Your task to perform on an android device: turn notification dots off Image 0: 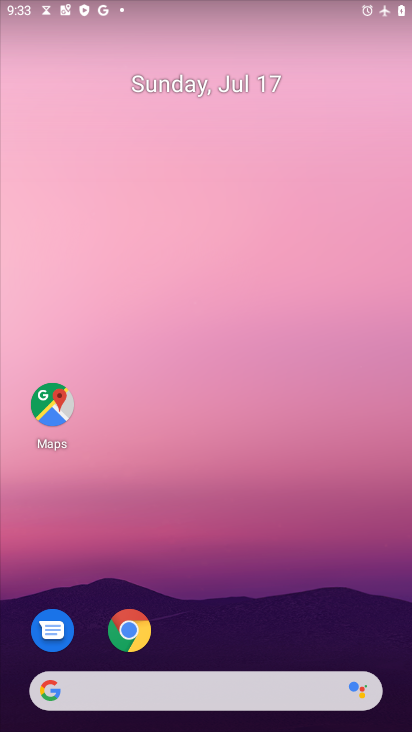
Step 0: drag from (186, 611) to (203, 25)
Your task to perform on an android device: turn notification dots off Image 1: 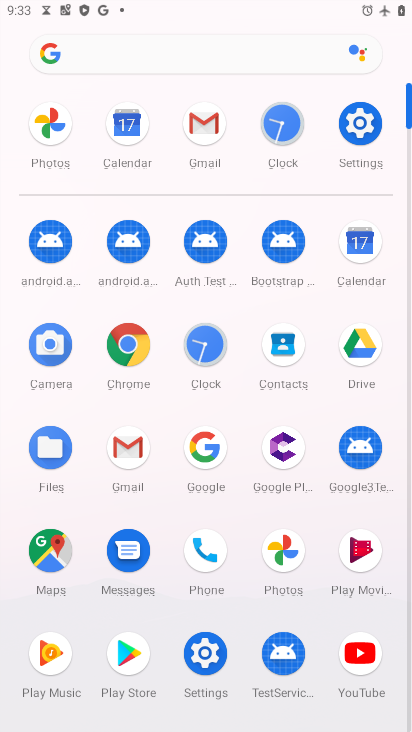
Step 1: click (360, 123)
Your task to perform on an android device: turn notification dots off Image 2: 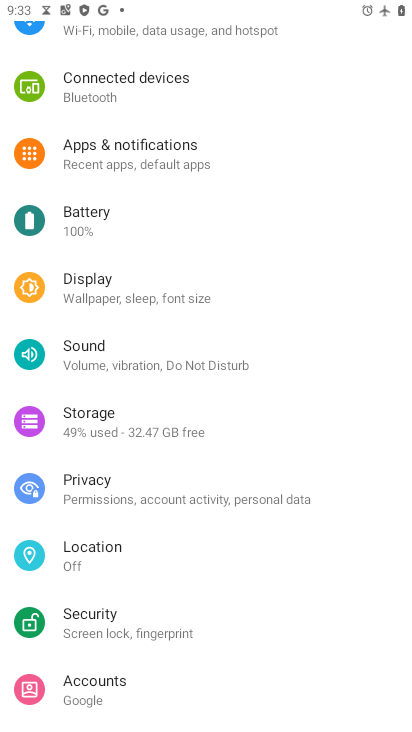
Step 2: drag from (189, 179) to (188, 419)
Your task to perform on an android device: turn notification dots off Image 3: 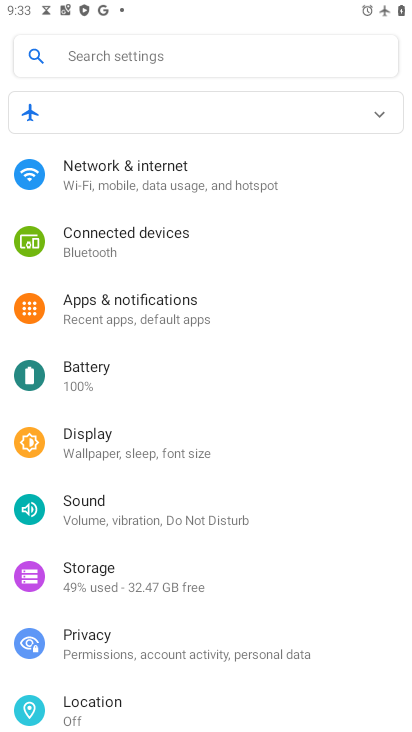
Step 3: click (85, 319)
Your task to perform on an android device: turn notification dots off Image 4: 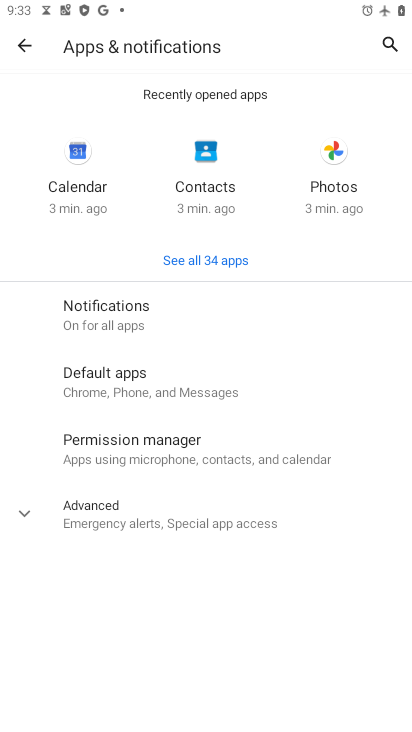
Step 4: click (106, 317)
Your task to perform on an android device: turn notification dots off Image 5: 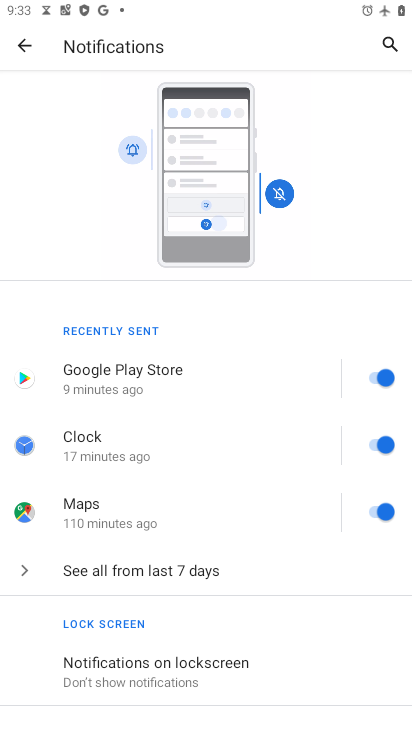
Step 5: drag from (232, 670) to (220, 335)
Your task to perform on an android device: turn notification dots off Image 6: 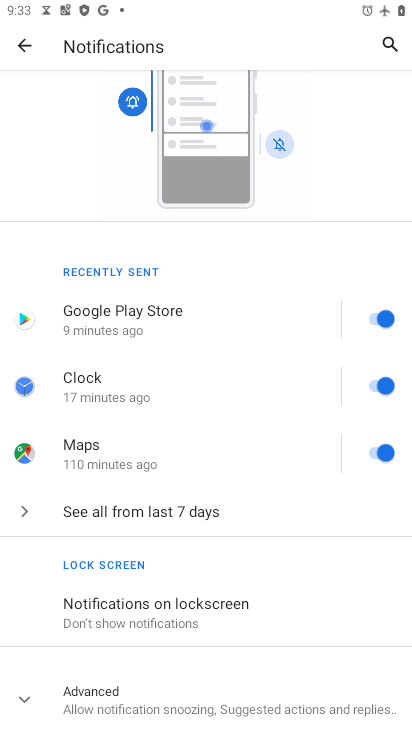
Step 6: click (65, 691)
Your task to perform on an android device: turn notification dots off Image 7: 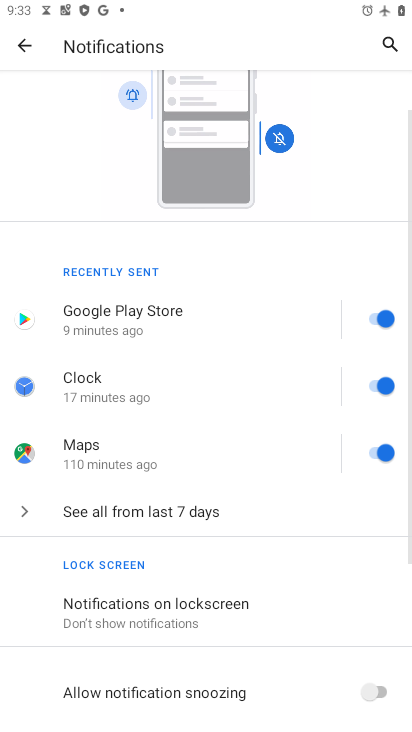
Step 7: task complete